Your task to perform on an android device: empty trash in the gmail app Image 0: 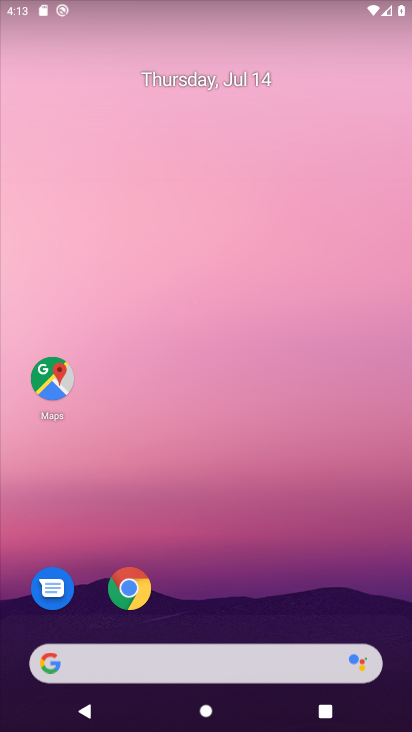
Step 0: drag from (287, 613) to (267, 97)
Your task to perform on an android device: empty trash in the gmail app Image 1: 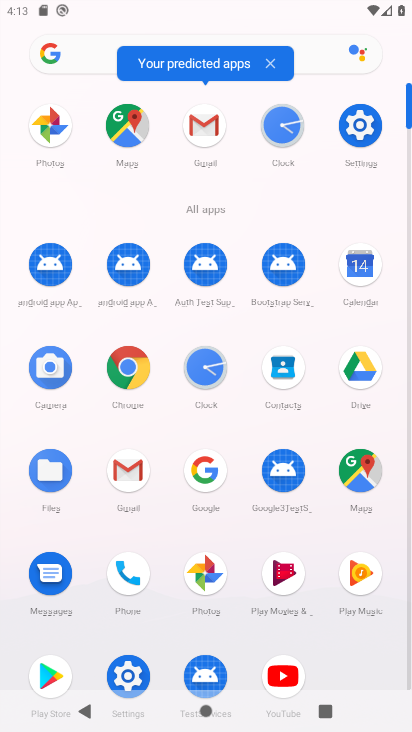
Step 1: click (209, 129)
Your task to perform on an android device: empty trash in the gmail app Image 2: 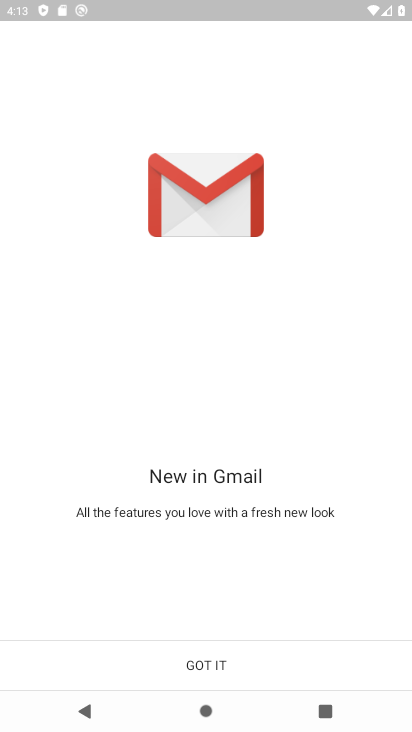
Step 2: click (215, 666)
Your task to perform on an android device: empty trash in the gmail app Image 3: 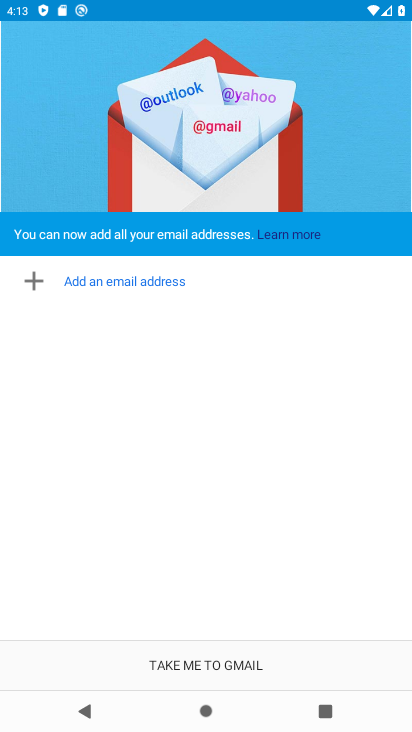
Step 3: click (236, 665)
Your task to perform on an android device: empty trash in the gmail app Image 4: 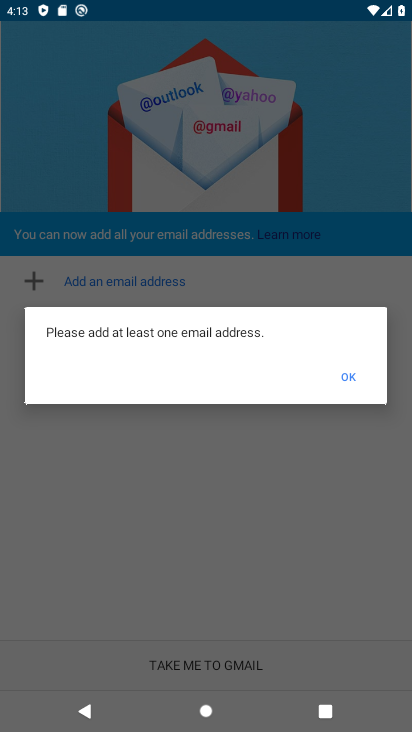
Step 4: task complete